Your task to perform on an android device: Is it going to rain tomorrow? Image 0: 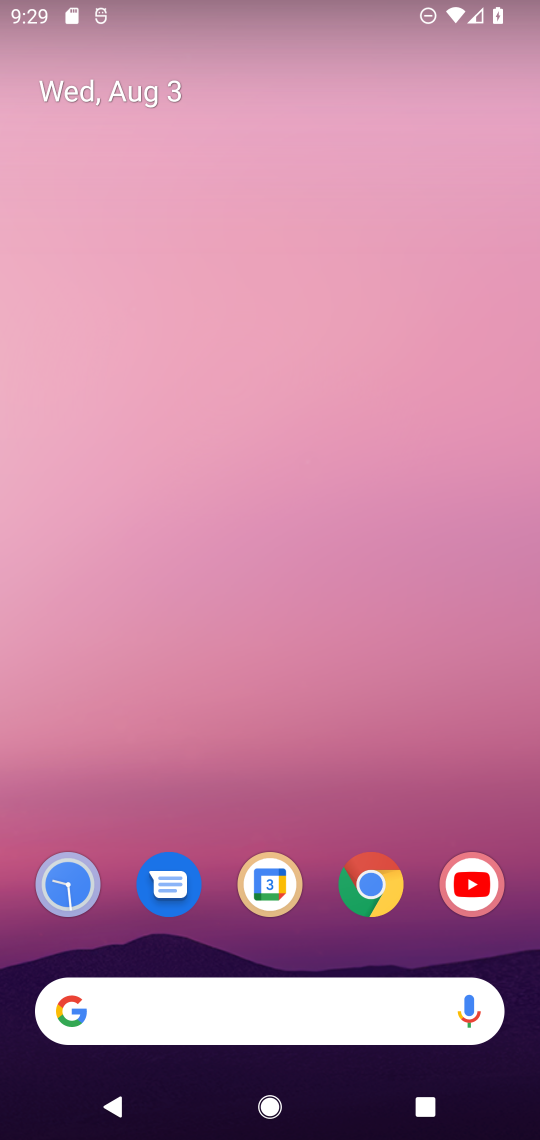
Step 0: click (392, 893)
Your task to perform on an android device: Is it going to rain tomorrow? Image 1: 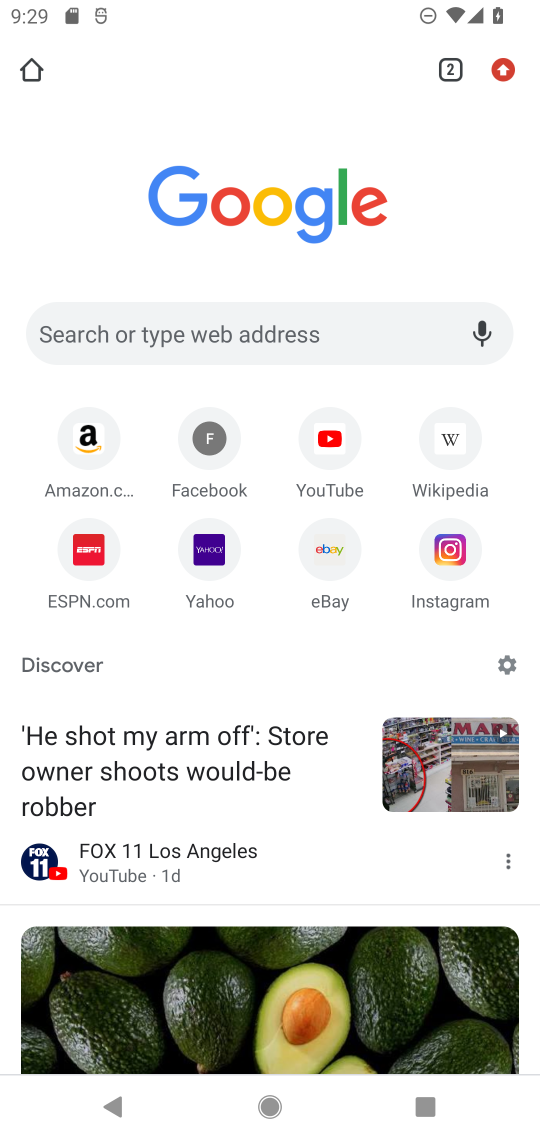
Step 1: click (358, 874)
Your task to perform on an android device: Is it going to rain tomorrow? Image 2: 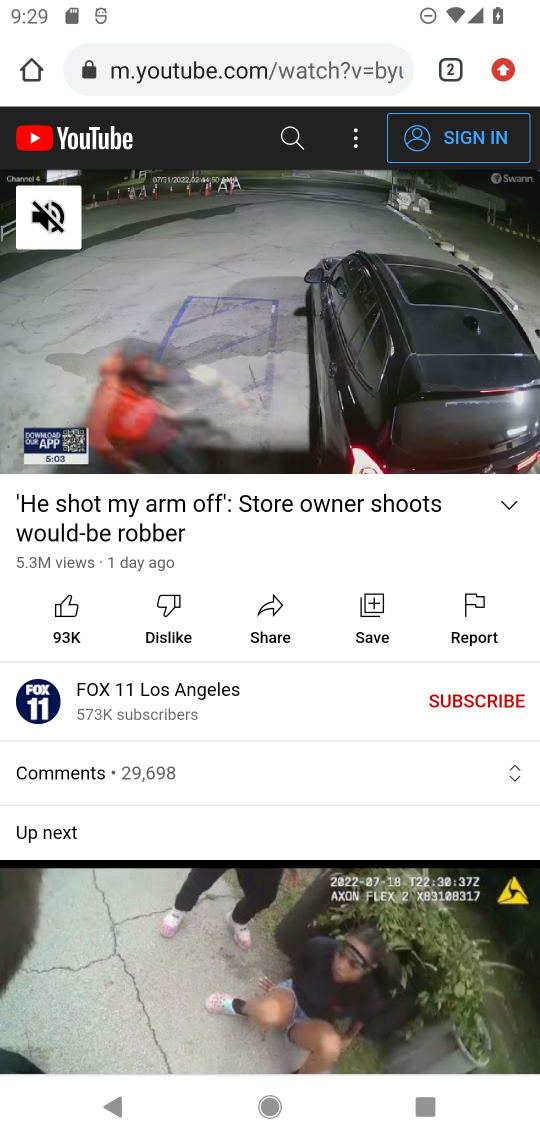
Step 2: press home button
Your task to perform on an android device: Is it going to rain tomorrow? Image 3: 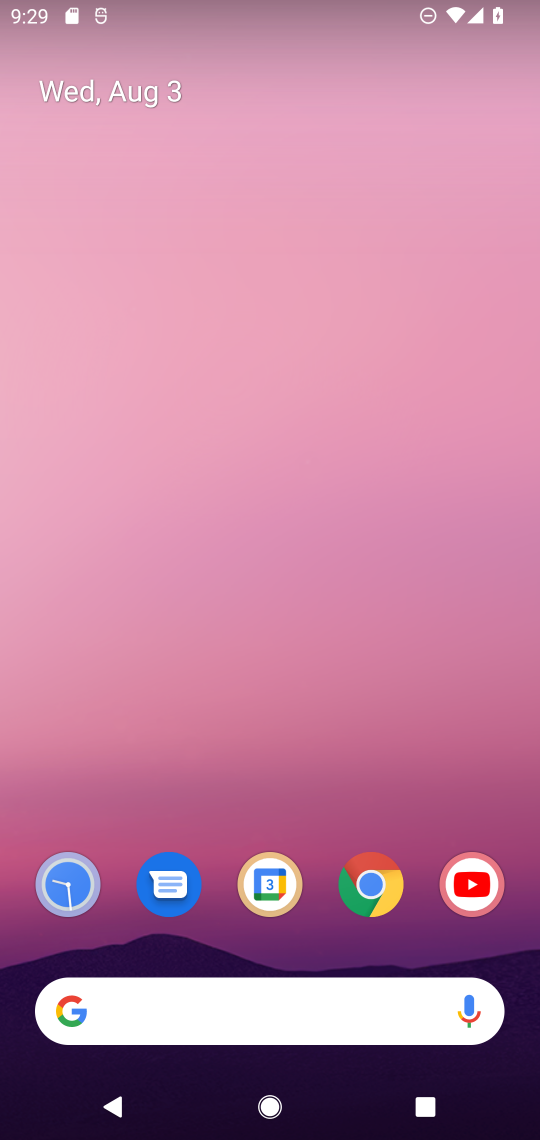
Step 3: click (132, 1005)
Your task to perform on an android device: Is it going to rain tomorrow? Image 4: 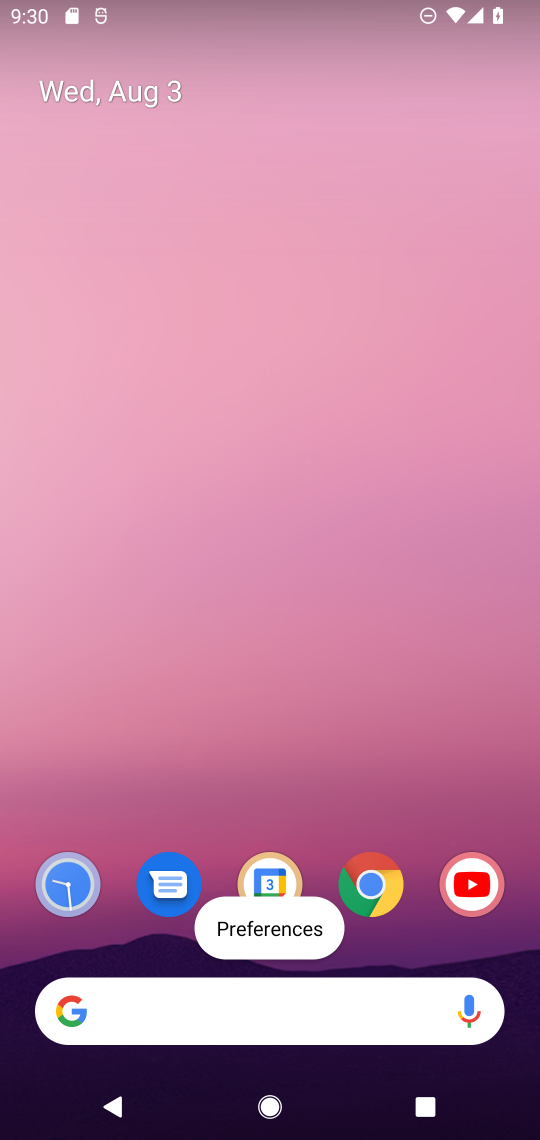
Step 4: task complete